Your task to perform on an android device: Open notification settings Image 0: 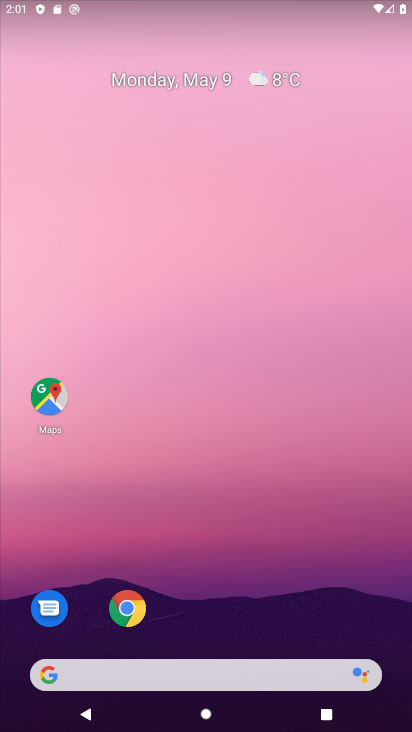
Step 0: drag from (234, 657) to (243, 84)
Your task to perform on an android device: Open notification settings Image 1: 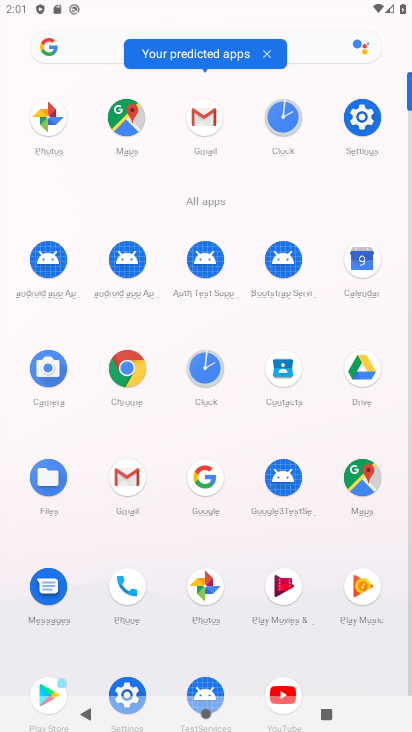
Step 1: click (133, 682)
Your task to perform on an android device: Open notification settings Image 2: 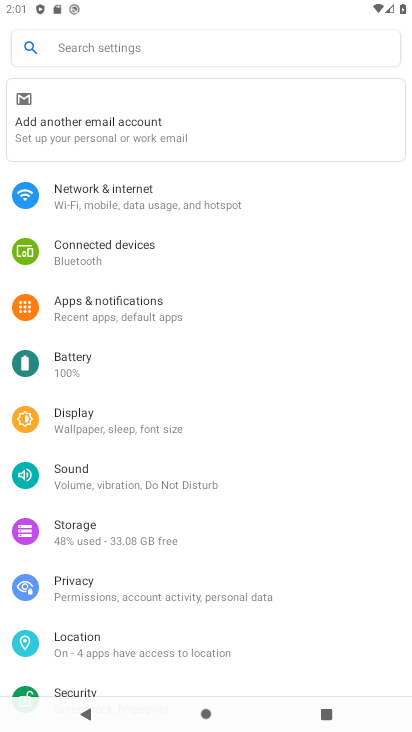
Step 2: click (261, 313)
Your task to perform on an android device: Open notification settings Image 3: 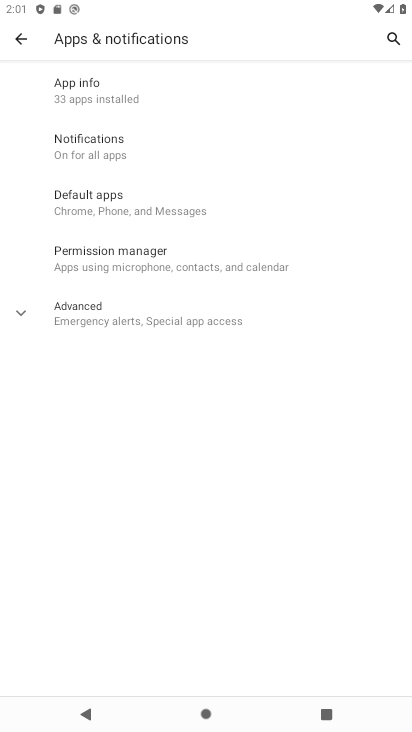
Step 3: click (162, 152)
Your task to perform on an android device: Open notification settings Image 4: 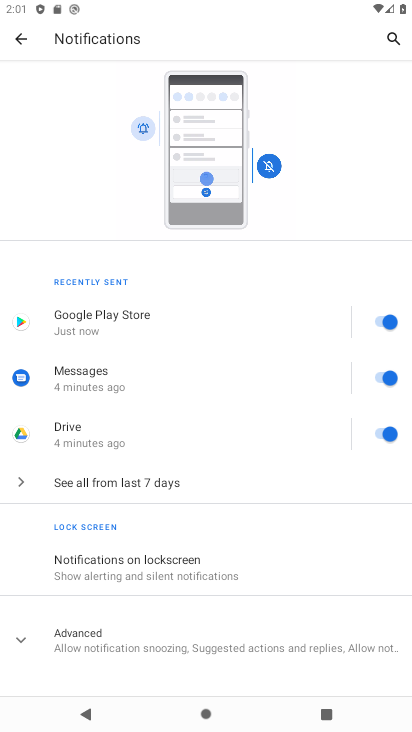
Step 4: drag from (229, 660) to (278, 467)
Your task to perform on an android device: Open notification settings Image 5: 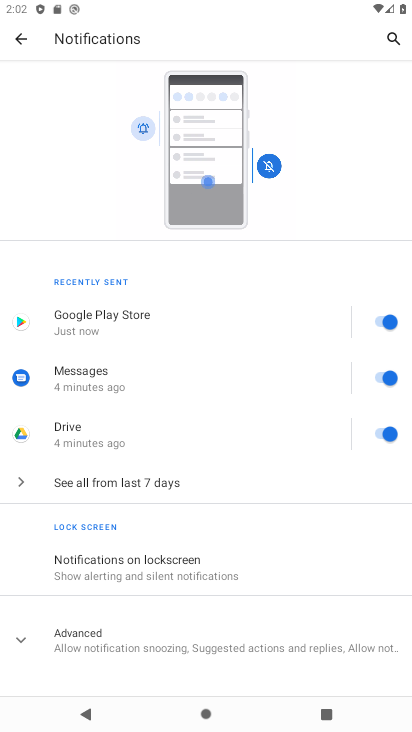
Step 5: click (216, 651)
Your task to perform on an android device: Open notification settings Image 6: 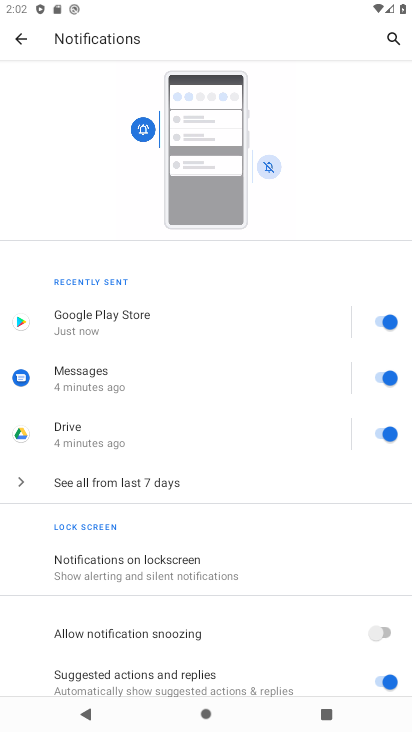
Step 6: task complete